Your task to perform on an android device: turn off translation in the chrome app Image 0: 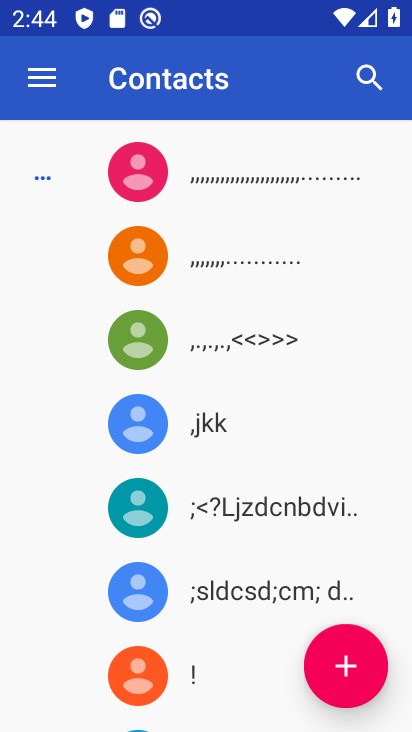
Step 0: press home button
Your task to perform on an android device: turn off translation in the chrome app Image 1: 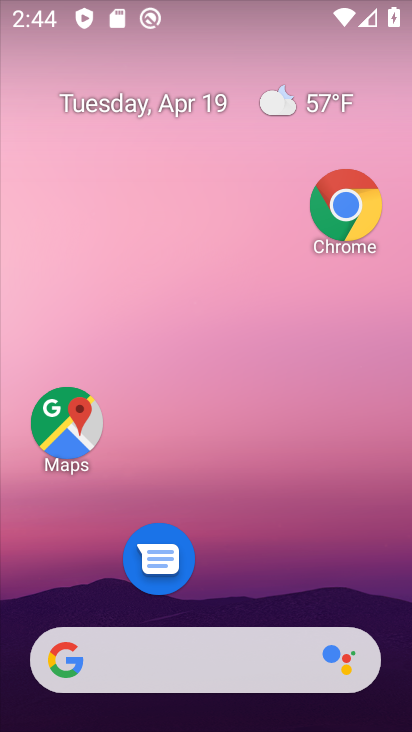
Step 1: drag from (212, 527) to (256, 216)
Your task to perform on an android device: turn off translation in the chrome app Image 2: 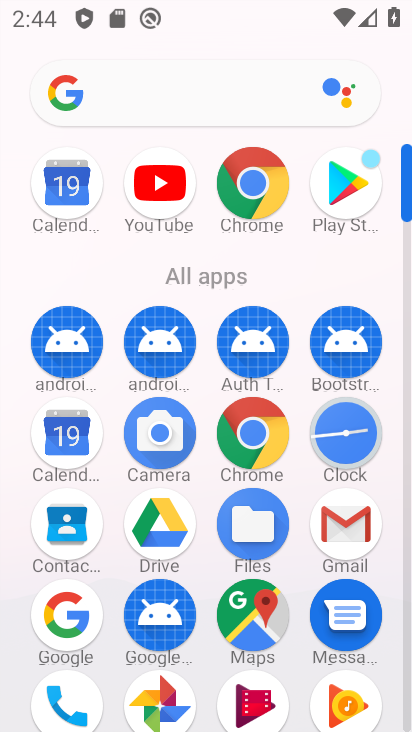
Step 2: click (251, 192)
Your task to perform on an android device: turn off translation in the chrome app Image 3: 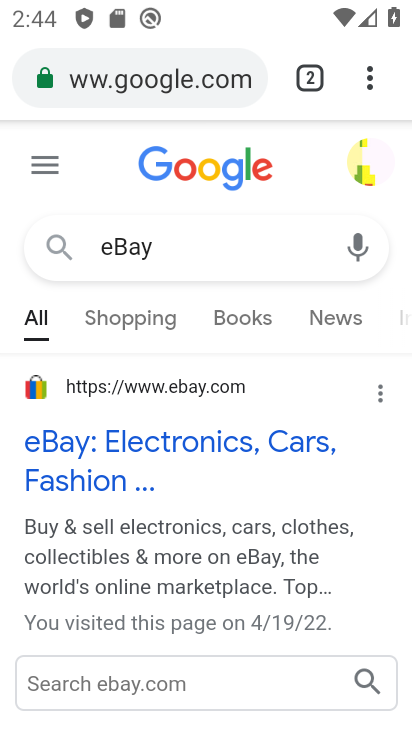
Step 3: click (366, 82)
Your task to perform on an android device: turn off translation in the chrome app Image 4: 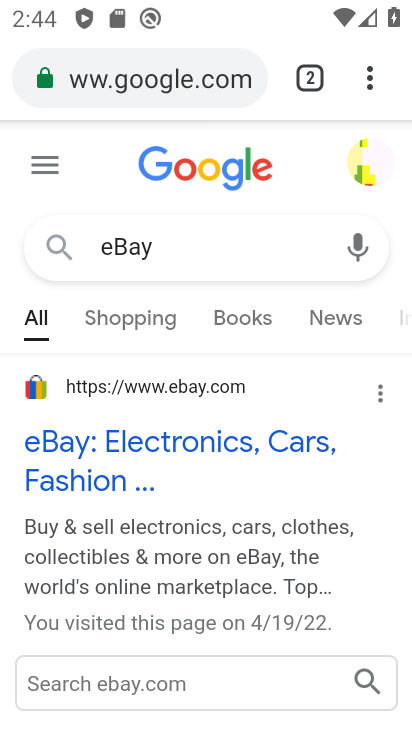
Step 4: click (370, 75)
Your task to perform on an android device: turn off translation in the chrome app Image 5: 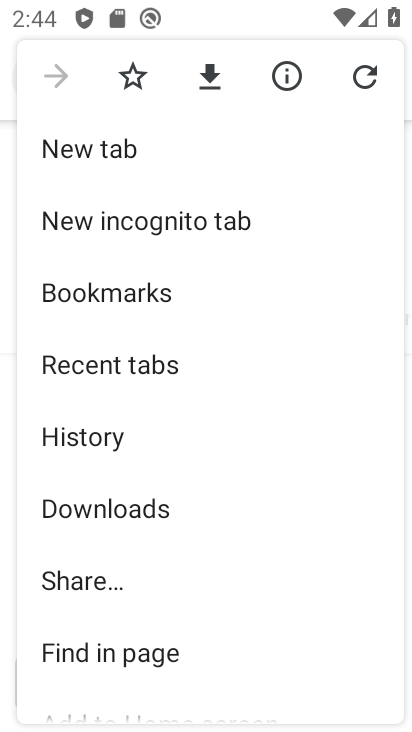
Step 5: drag from (191, 455) to (198, 193)
Your task to perform on an android device: turn off translation in the chrome app Image 6: 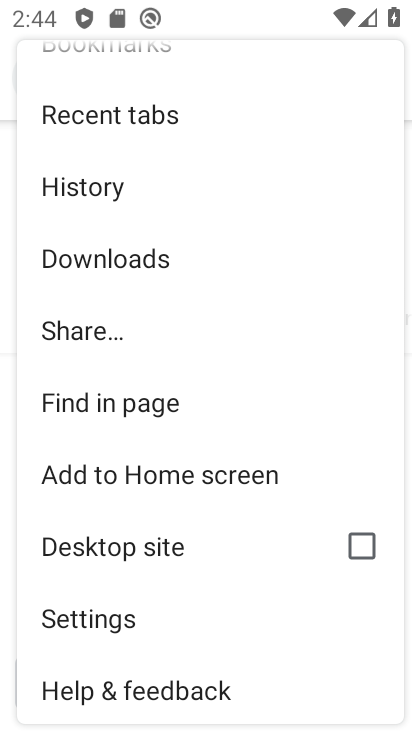
Step 6: click (80, 614)
Your task to perform on an android device: turn off translation in the chrome app Image 7: 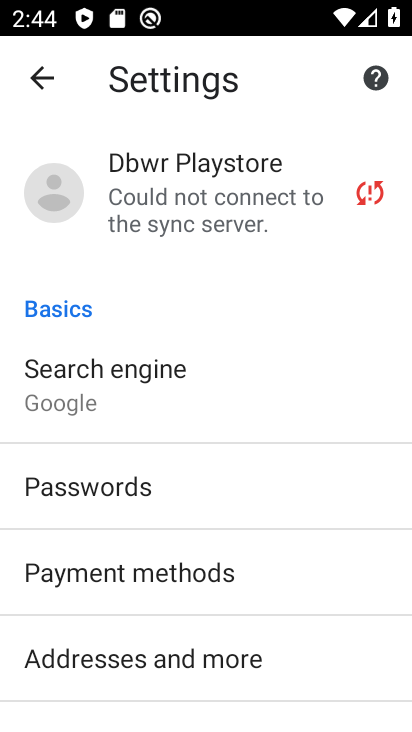
Step 7: drag from (100, 595) to (280, 151)
Your task to perform on an android device: turn off translation in the chrome app Image 8: 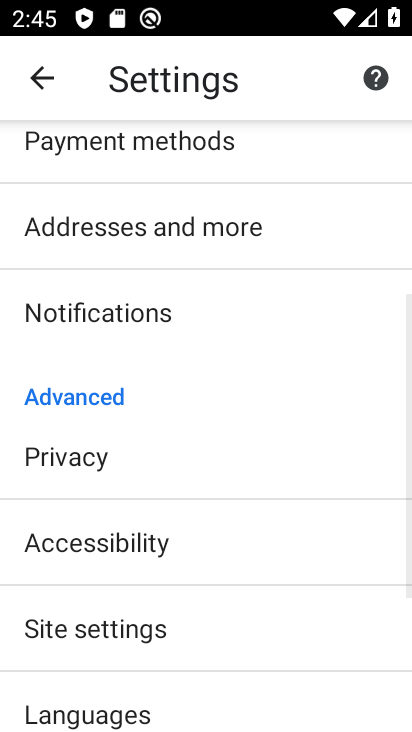
Step 8: drag from (161, 615) to (234, 399)
Your task to perform on an android device: turn off translation in the chrome app Image 9: 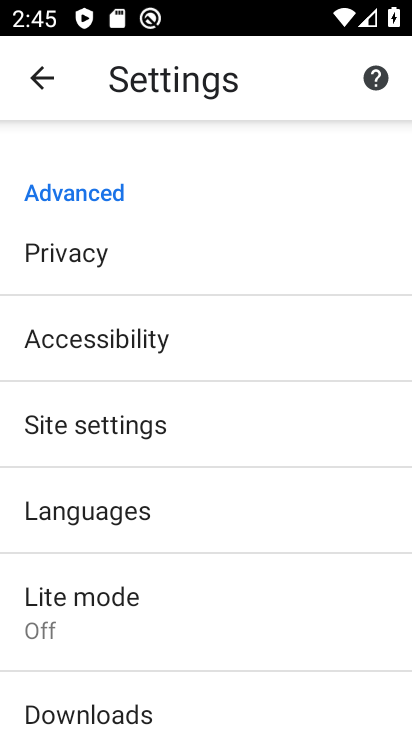
Step 9: click (104, 521)
Your task to perform on an android device: turn off translation in the chrome app Image 10: 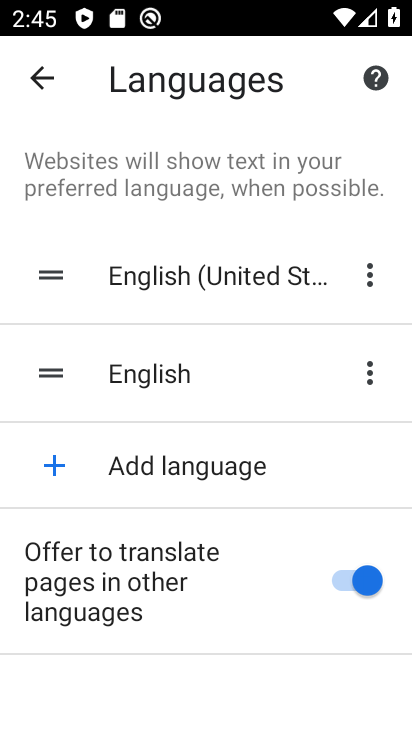
Step 10: click (334, 584)
Your task to perform on an android device: turn off translation in the chrome app Image 11: 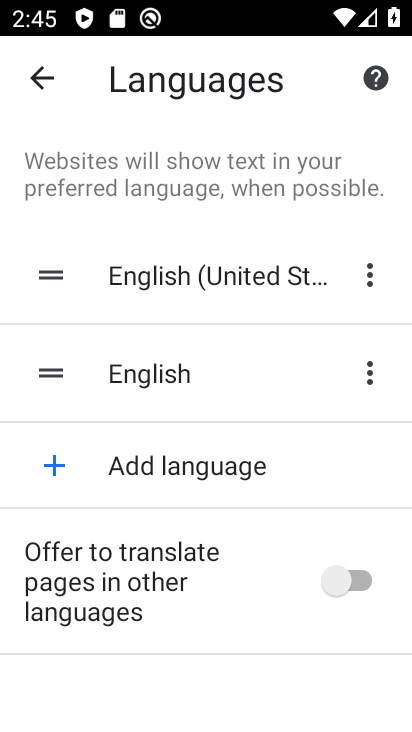
Step 11: task complete